Your task to perform on an android device: delete location history Image 0: 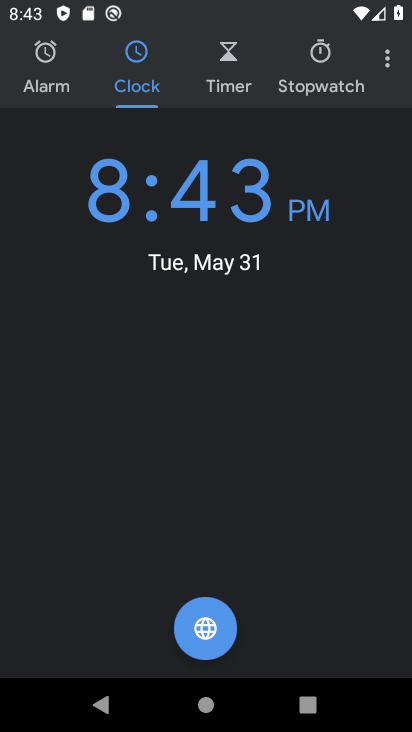
Step 0: press back button
Your task to perform on an android device: delete location history Image 1: 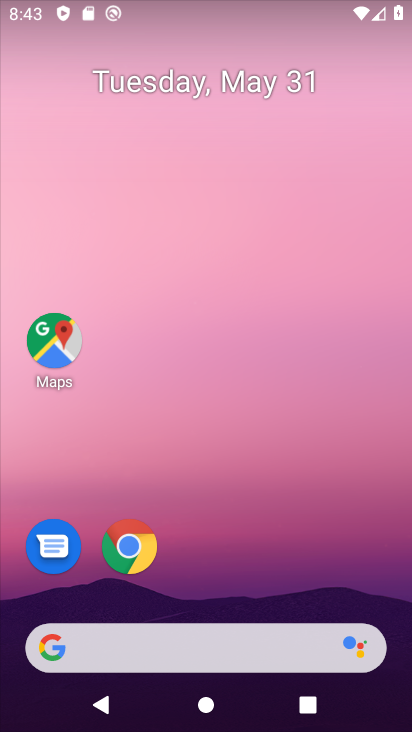
Step 1: click (60, 347)
Your task to perform on an android device: delete location history Image 2: 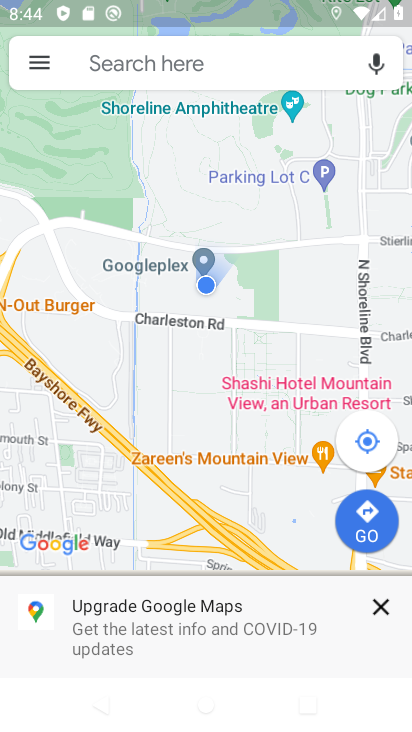
Step 2: click (34, 65)
Your task to perform on an android device: delete location history Image 3: 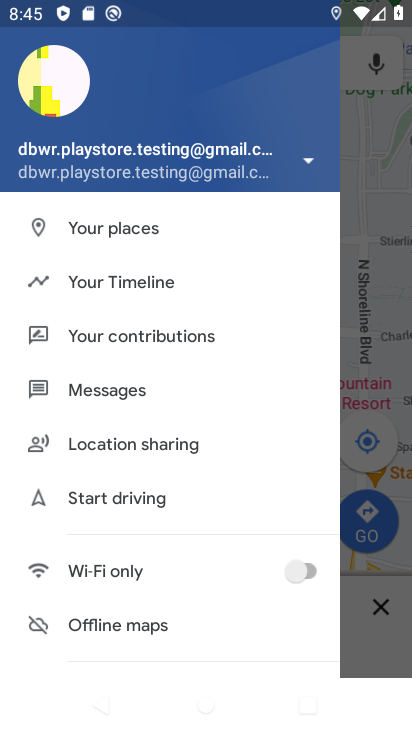
Step 3: click (97, 276)
Your task to perform on an android device: delete location history Image 4: 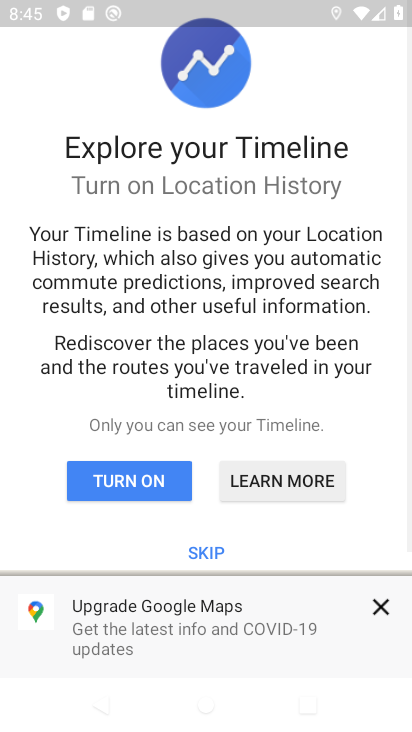
Step 4: click (154, 479)
Your task to perform on an android device: delete location history Image 5: 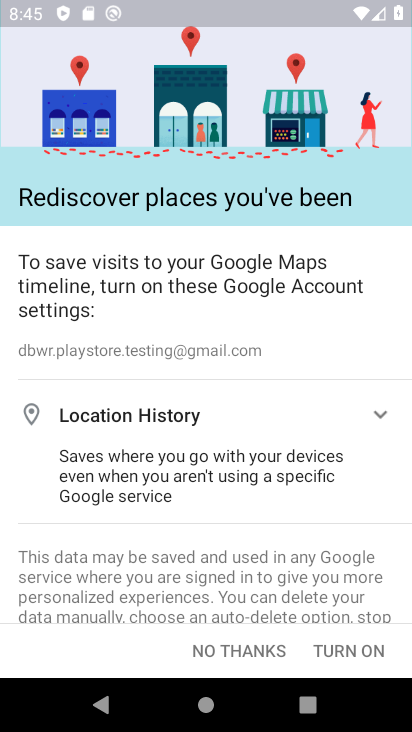
Step 5: click (342, 651)
Your task to perform on an android device: delete location history Image 6: 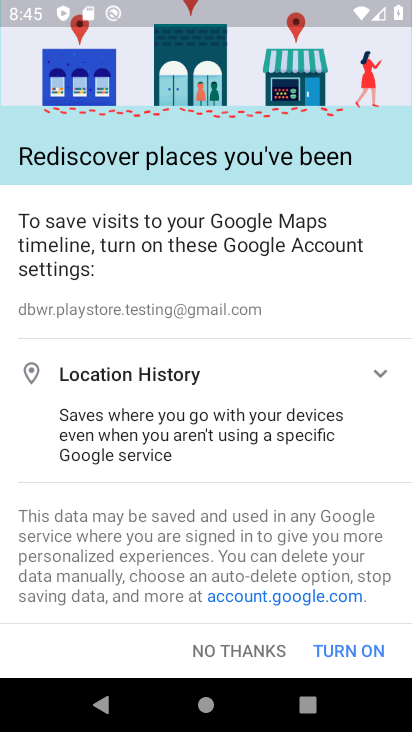
Step 6: click (342, 651)
Your task to perform on an android device: delete location history Image 7: 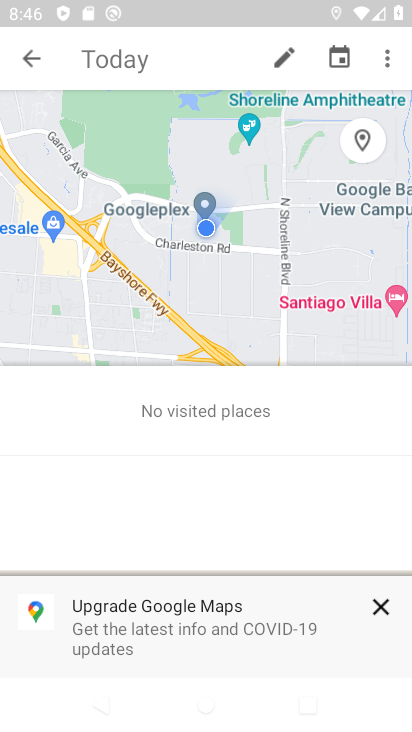
Step 7: click (389, 51)
Your task to perform on an android device: delete location history Image 8: 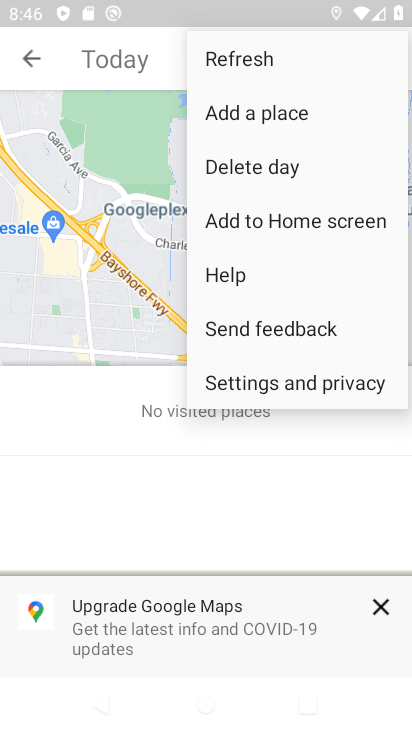
Step 8: click (287, 387)
Your task to perform on an android device: delete location history Image 9: 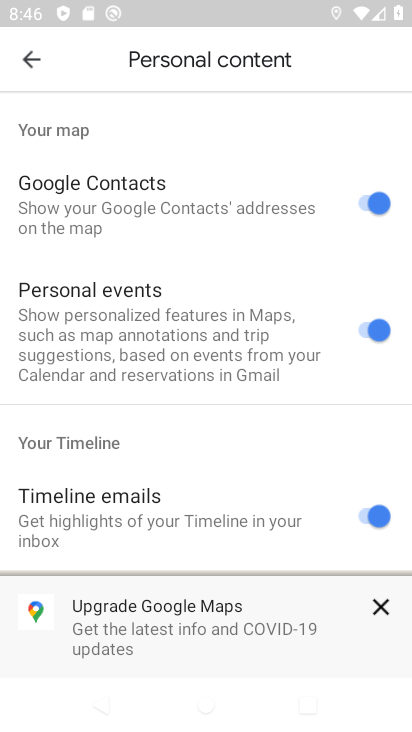
Step 9: drag from (276, 547) to (275, 170)
Your task to perform on an android device: delete location history Image 10: 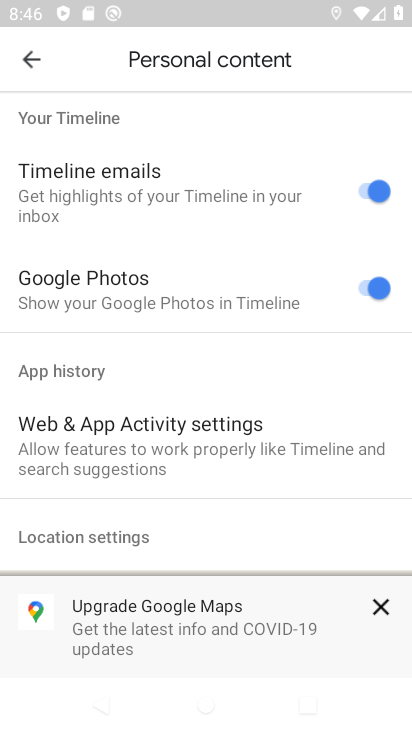
Step 10: drag from (264, 490) to (258, 210)
Your task to perform on an android device: delete location history Image 11: 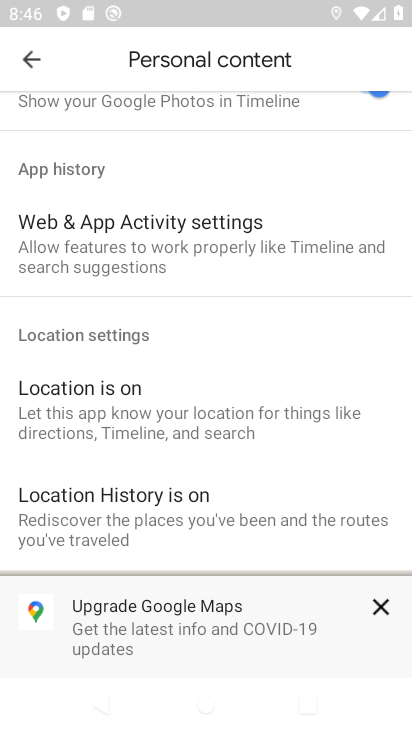
Step 11: drag from (285, 456) to (287, 172)
Your task to perform on an android device: delete location history Image 12: 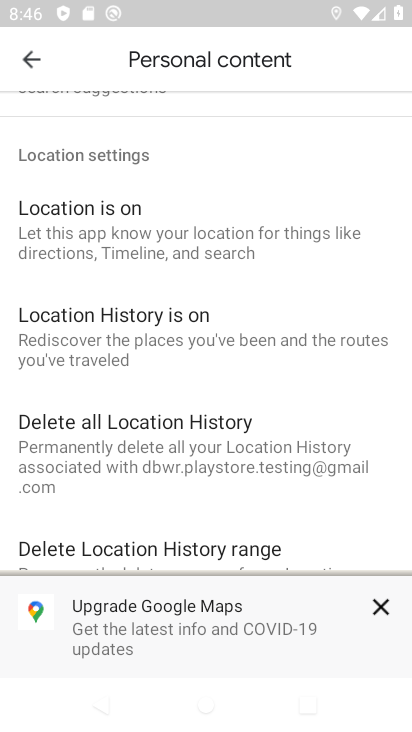
Step 12: click (121, 442)
Your task to perform on an android device: delete location history Image 13: 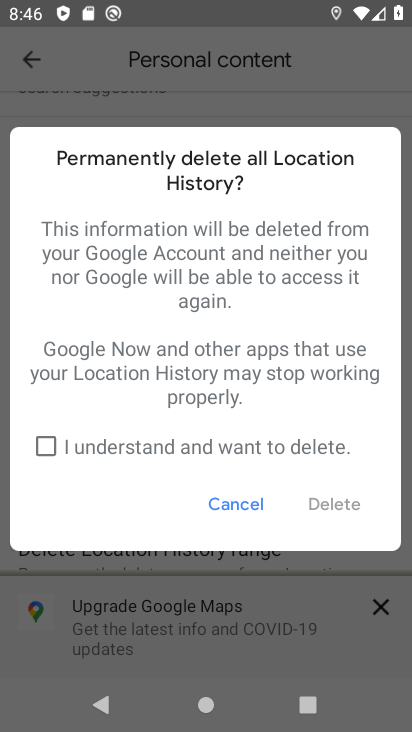
Step 13: click (47, 437)
Your task to perform on an android device: delete location history Image 14: 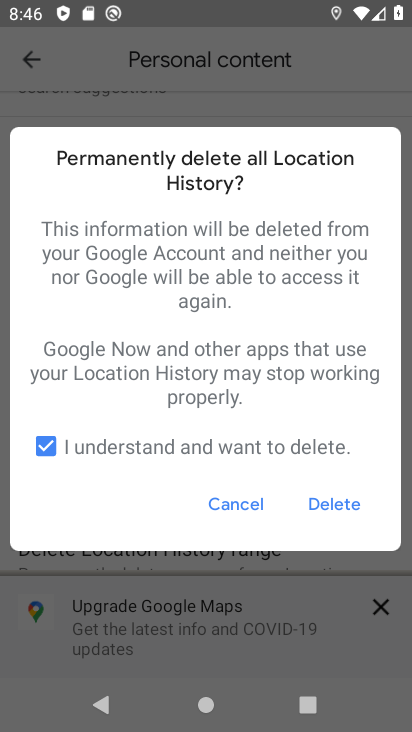
Step 14: click (339, 505)
Your task to perform on an android device: delete location history Image 15: 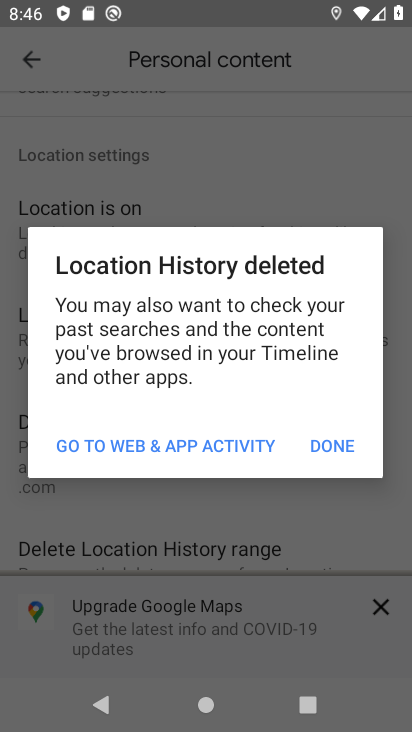
Step 15: click (334, 445)
Your task to perform on an android device: delete location history Image 16: 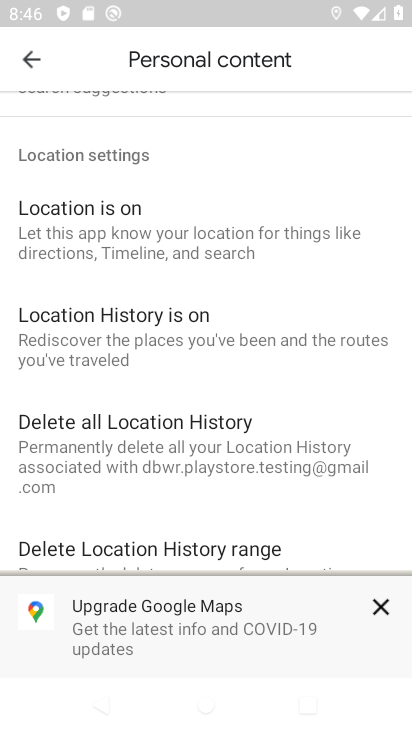
Step 16: task complete